Your task to perform on an android device: What is the news today? Image 0: 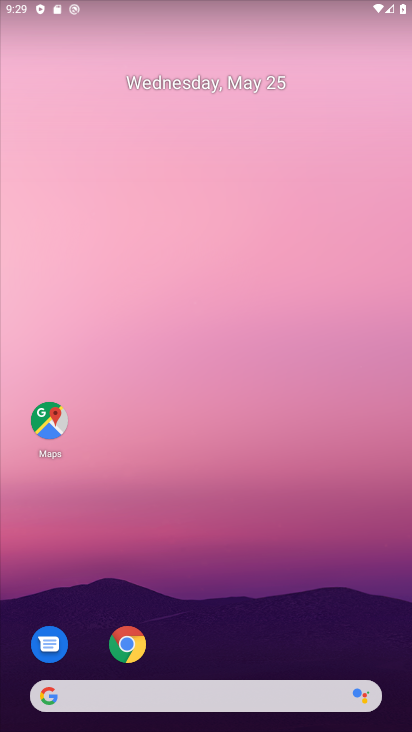
Step 0: click (120, 686)
Your task to perform on an android device: What is the news today? Image 1: 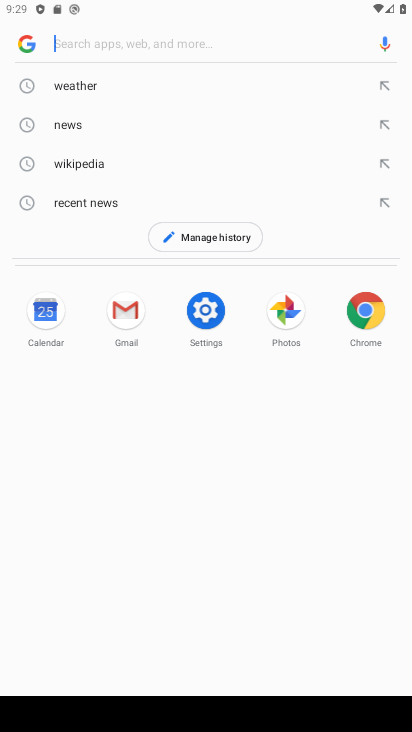
Step 1: click (105, 39)
Your task to perform on an android device: What is the news today? Image 2: 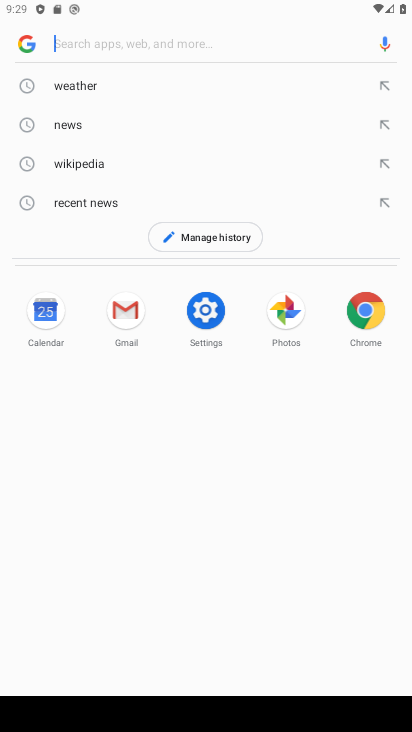
Step 2: type "news today"
Your task to perform on an android device: What is the news today? Image 3: 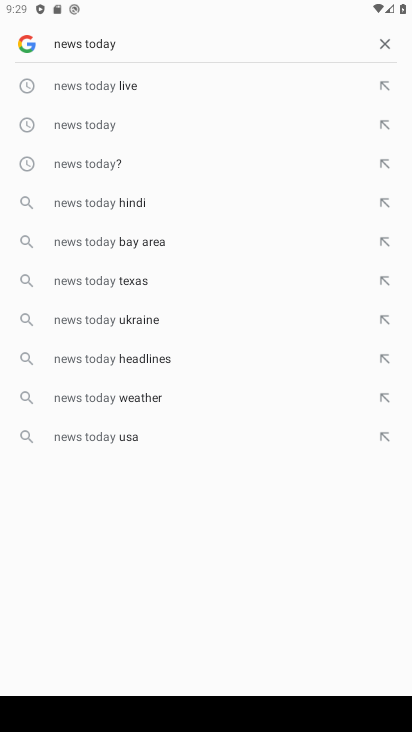
Step 3: click (99, 126)
Your task to perform on an android device: What is the news today? Image 4: 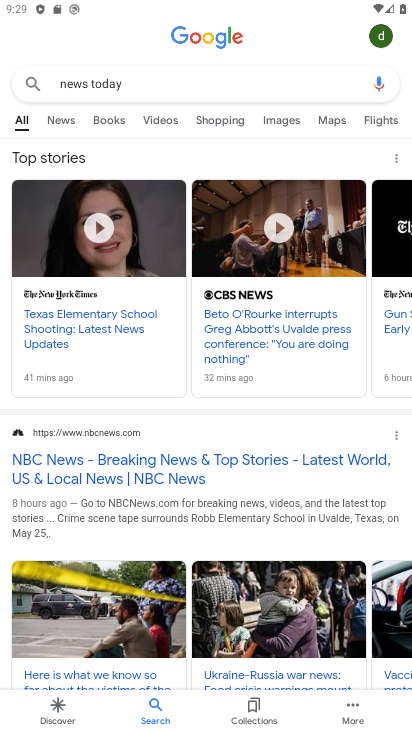
Step 4: click (121, 499)
Your task to perform on an android device: What is the news today? Image 5: 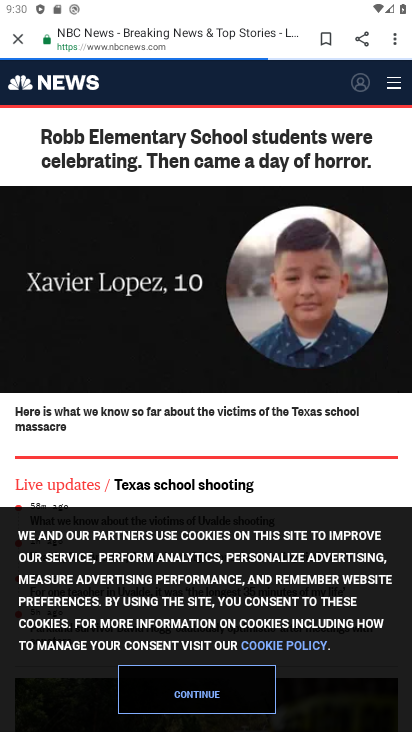
Step 5: task complete